Your task to perform on an android device: set an alarm Image 0: 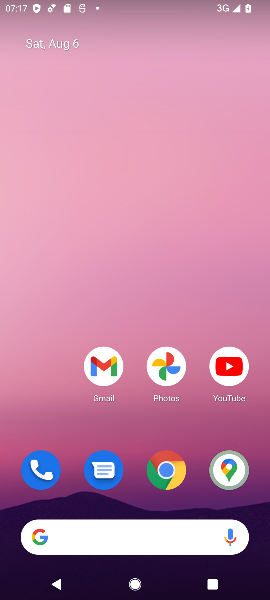
Step 0: drag from (50, 409) to (90, 3)
Your task to perform on an android device: set an alarm Image 1: 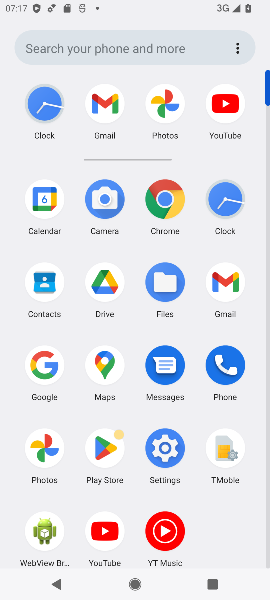
Step 1: click (233, 206)
Your task to perform on an android device: set an alarm Image 2: 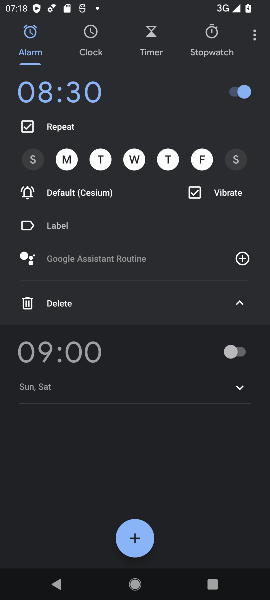
Step 2: click (130, 541)
Your task to perform on an android device: set an alarm Image 3: 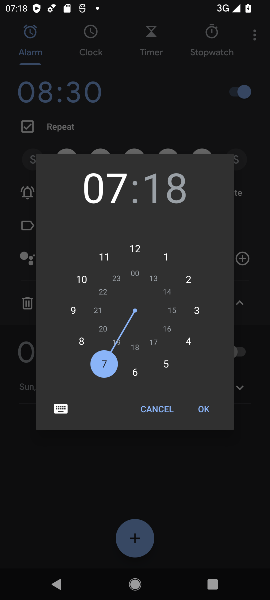
Step 3: click (198, 414)
Your task to perform on an android device: set an alarm Image 4: 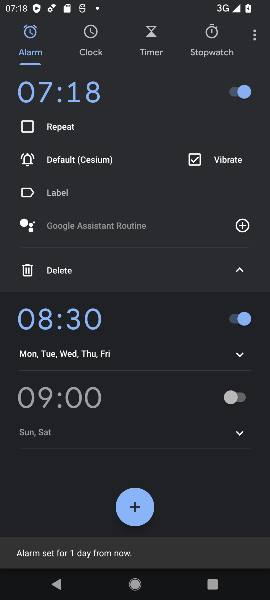
Step 4: task complete